Your task to perform on an android device: turn on javascript in the chrome app Image 0: 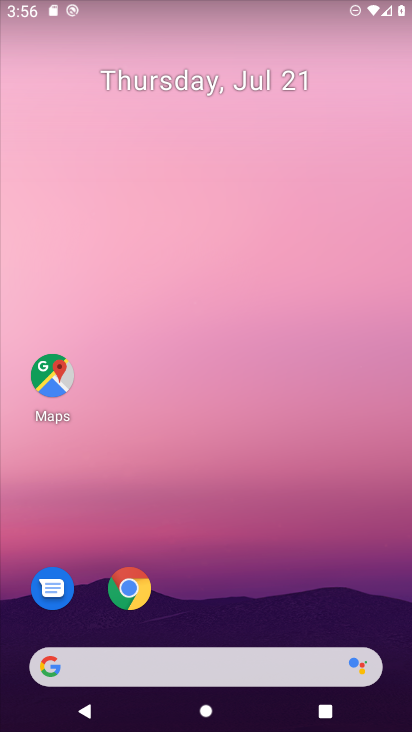
Step 0: drag from (207, 650) to (266, 51)
Your task to perform on an android device: turn on javascript in the chrome app Image 1: 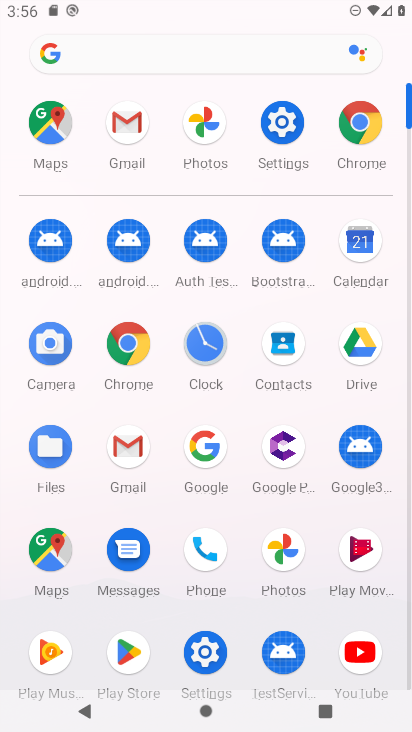
Step 1: drag from (212, 546) to (189, 194)
Your task to perform on an android device: turn on javascript in the chrome app Image 2: 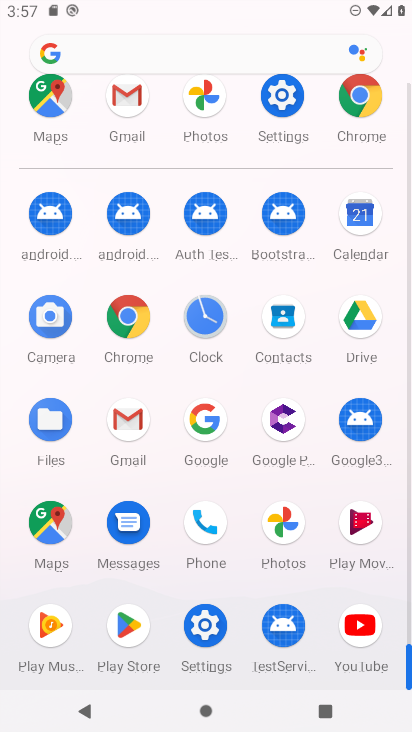
Step 2: click (351, 106)
Your task to perform on an android device: turn on javascript in the chrome app Image 3: 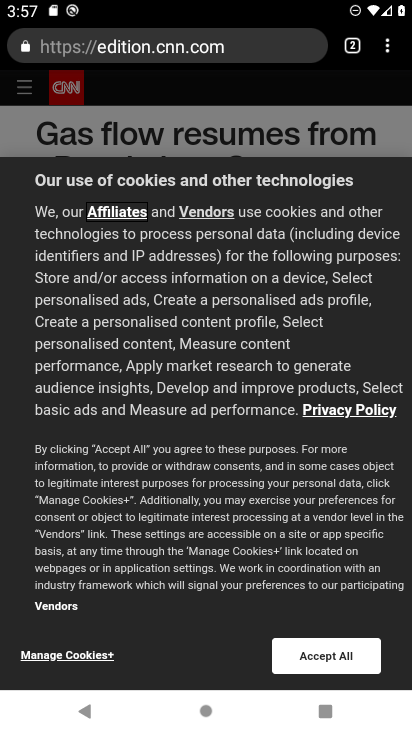
Step 3: click (387, 51)
Your task to perform on an android device: turn on javascript in the chrome app Image 4: 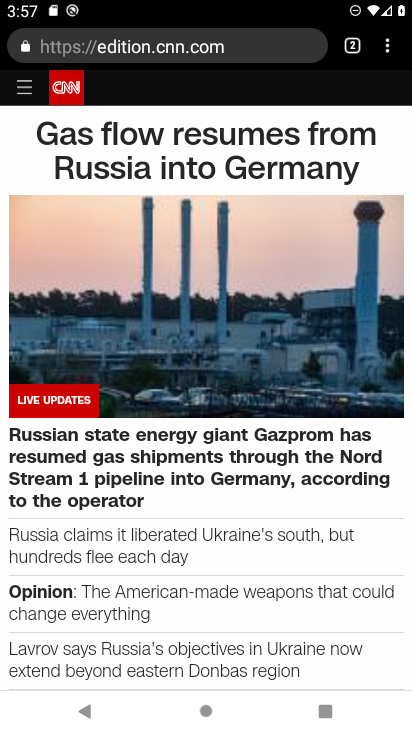
Step 4: click (383, 50)
Your task to perform on an android device: turn on javascript in the chrome app Image 5: 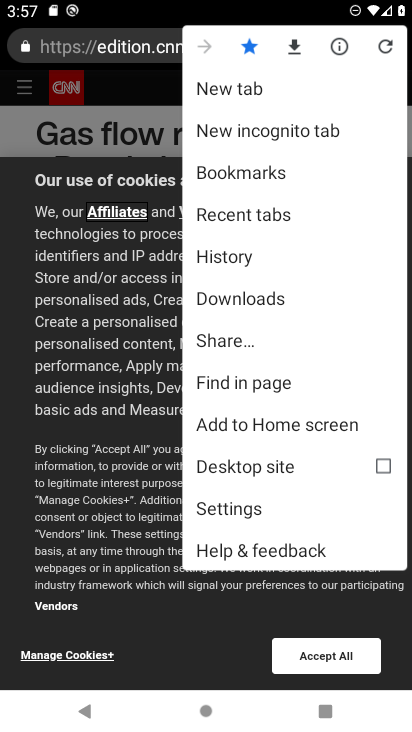
Step 5: click (236, 507)
Your task to perform on an android device: turn on javascript in the chrome app Image 6: 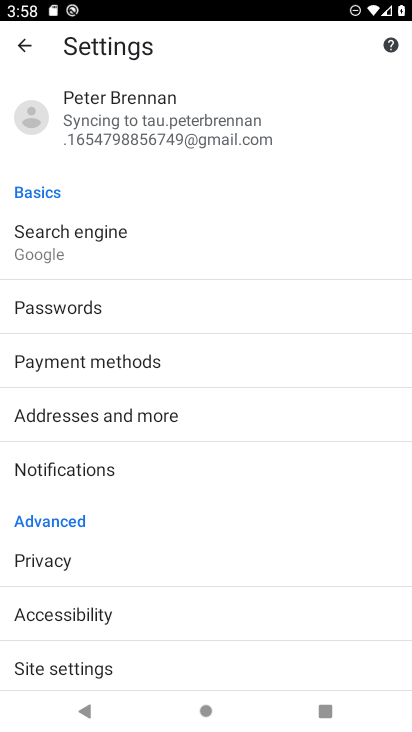
Step 6: drag from (156, 552) to (225, 168)
Your task to perform on an android device: turn on javascript in the chrome app Image 7: 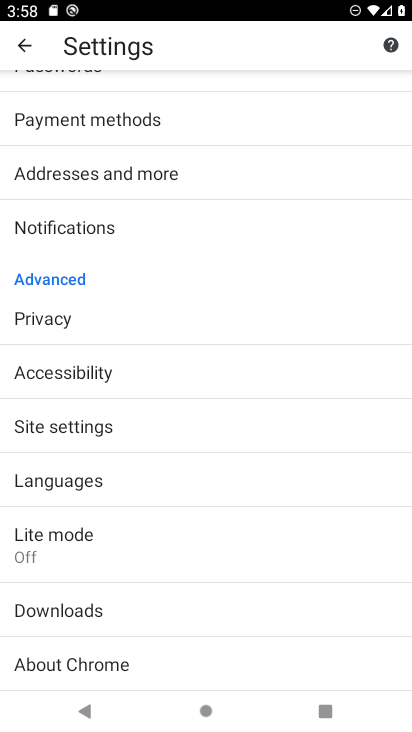
Step 7: click (75, 429)
Your task to perform on an android device: turn on javascript in the chrome app Image 8: 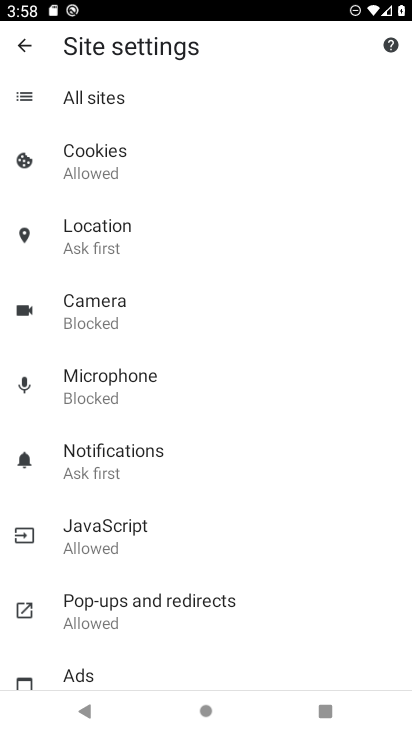
Step 8: click (173, 542)
Your task to perform on an android device: turn on javascript in the chrome app Image 9: 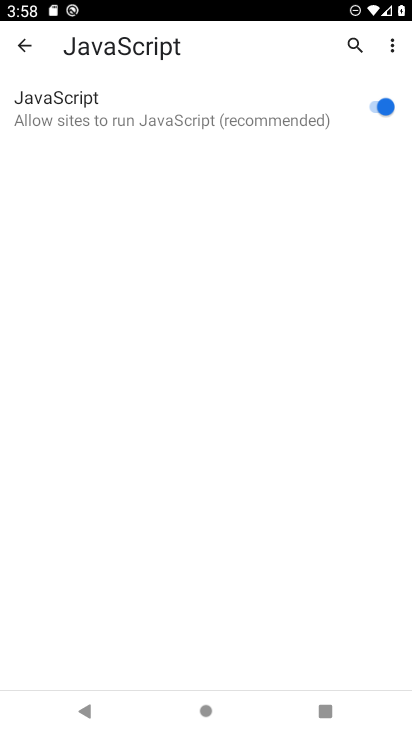
Step 9: task complete